Your task to perform on an android device: open app "Reddit" (install if not already installed) and enter user name: "issues@yahoo.com" and password: "belt" Image 0: 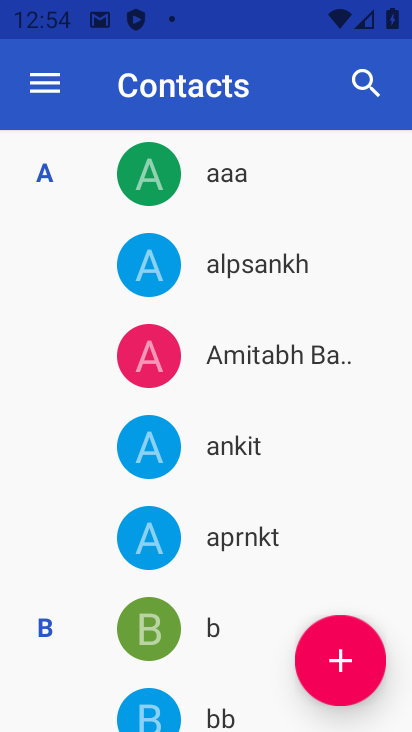
Step 0: press home button
Your task to perform on an android device: open app "Reddit" (install if not already installed) and enter user name: "issues@yahoo.com" and password: "belt" Image 1: 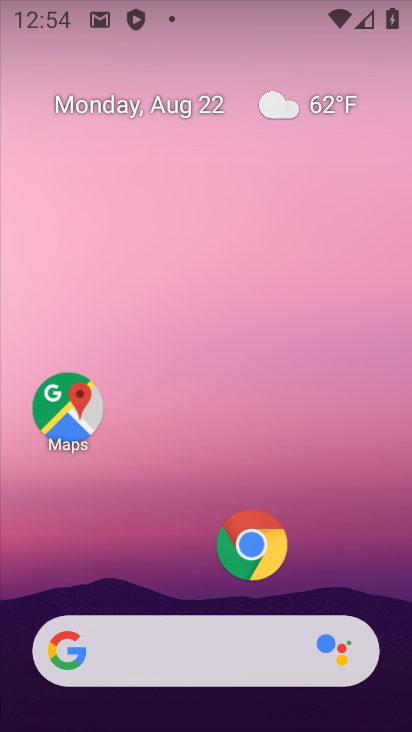
Step 1: drag from (134, 589) to (162, 0)
Your task to perform on an android device: open app "Reddit" (install if not already installed) and enter user name: "issues@yahoo.com" and password: "belt" Image 2: 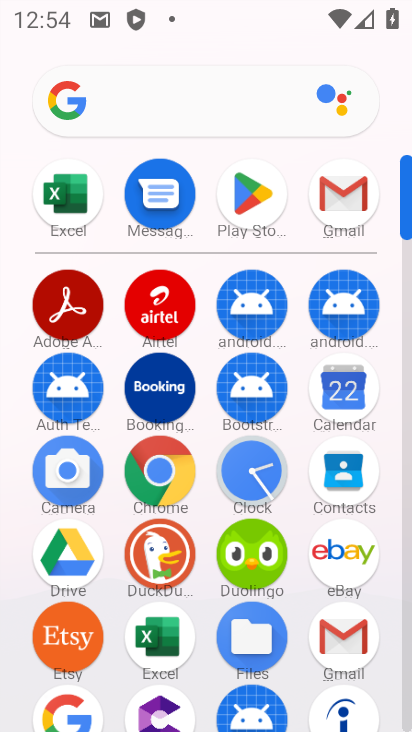
Step 2: click (243, 196)
Your task to perform on an android device: open app "Reddit" (install if not already installed) and enter user name: "issues@yahoo.com" and password: "belt" Image 3: 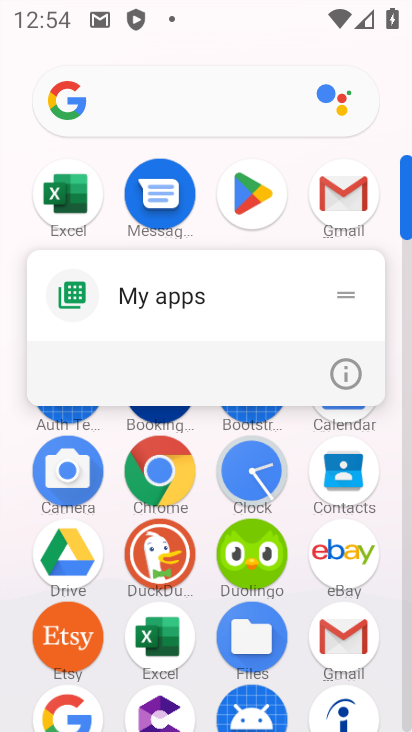
Step 3: click (243, 196)
Your task to perform on an android device: open app "Reddit" (install if not already installed) and enter user name: "issues@yahoo.com" and password: "belt" Image 4: 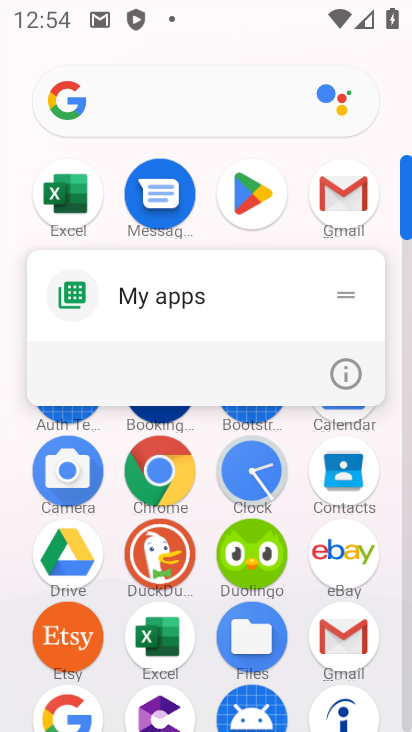
Step 4: click (257, 192)
Your task to perform on an android device: open app "Reddit" (install if not already installed) and enter user name: "issues@yahoo.com" and password: "belt" Image 5: 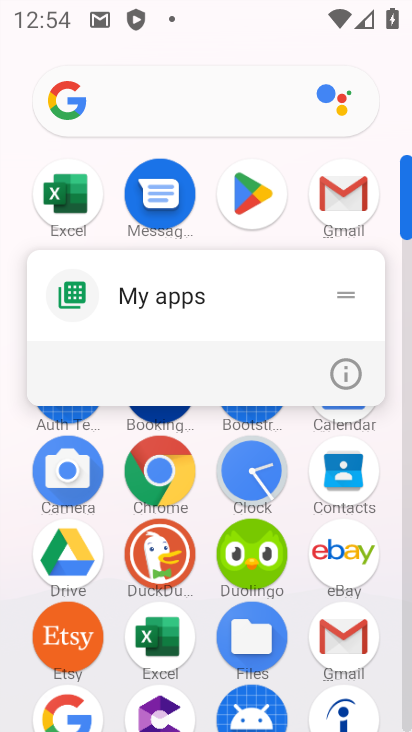
Step 5: click (248, 190)
Your task to perform on an android device: open app "Reddit" (install if not already installed) and enter user name: "issues@yahoo.com" and password: "belt" Image 6: 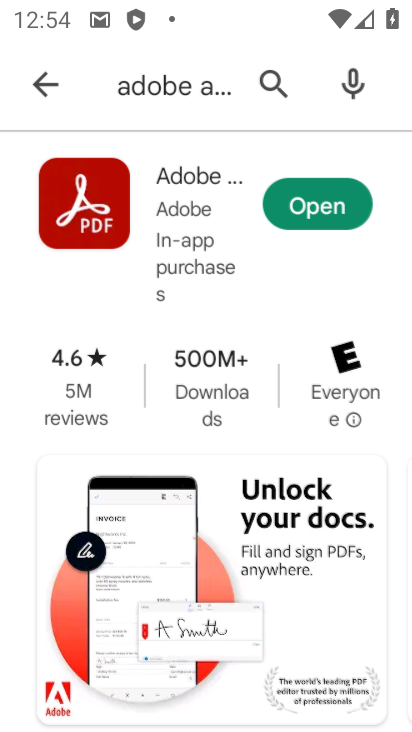
Step 6: click (266, 101)
Your task to perform on an android device: open app "Reddit" (install if not already installed) and enter user name: "issues@yahoo.com" and password: "belt" Image 7: 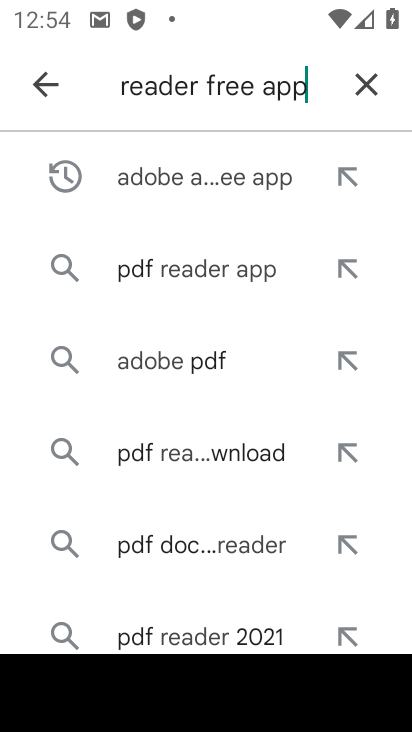
Step 7: click (359, 103)
Your task to perform on an android device: open app "Reddit" (install if not already installed) and enter user name: "issues@yahoo.com" and password: "belt" Image 8: 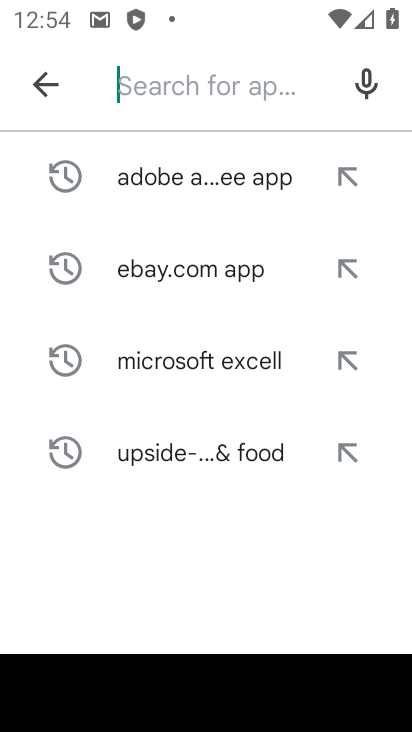
Step 8: click (156, 82)
Your task to perform on an android device: open app "Reddit" (install if not already installed) and enter user name: "issues@yahoo.com" and password: "belt" Image 9: 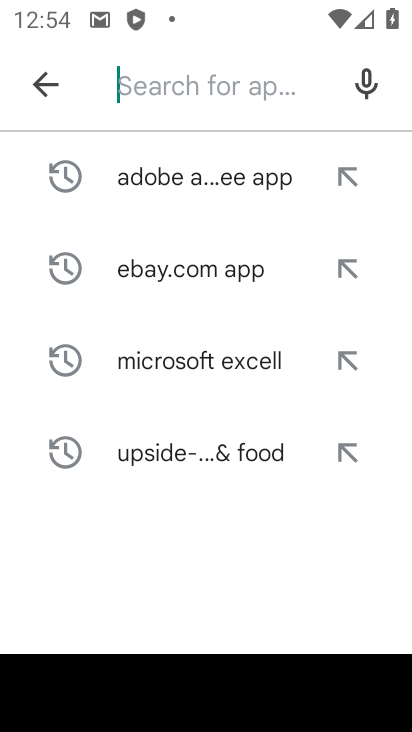
Step 9: type "reddit"
Your task to perform on an android device: open app "Reddit" (install if not already installed) and enter user name: "issues@yahoo.com" and password: "belt" Image 10: 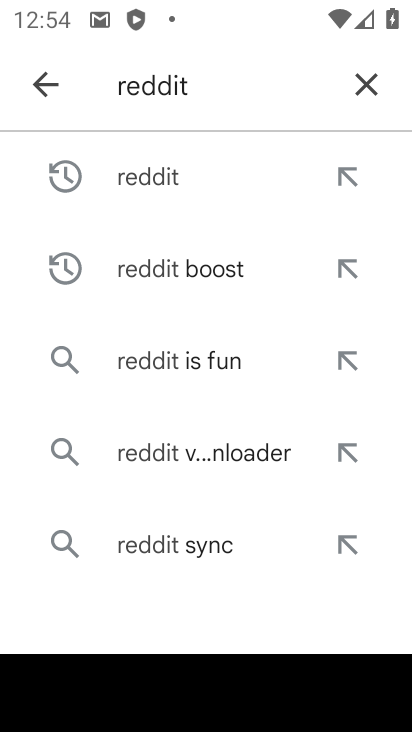
Step 10: click (190, 163)
Your task to perform on an android device: open app "Reddit" (install if not already installed) and enter user name: "issues@yahoo.com" and password: "belt" Image 11: 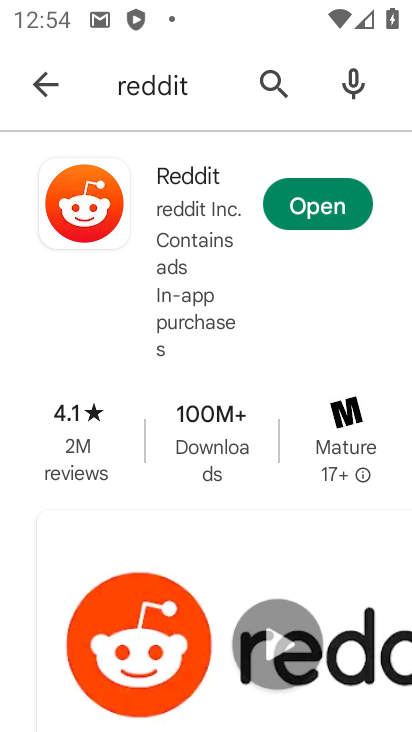
Step 11: click (316, 211)
Your task to perform on an android device: open app "Reddit" (install if not already installed) and enter user name: "issues@yahoo.com" and password: "belt" Image 12: 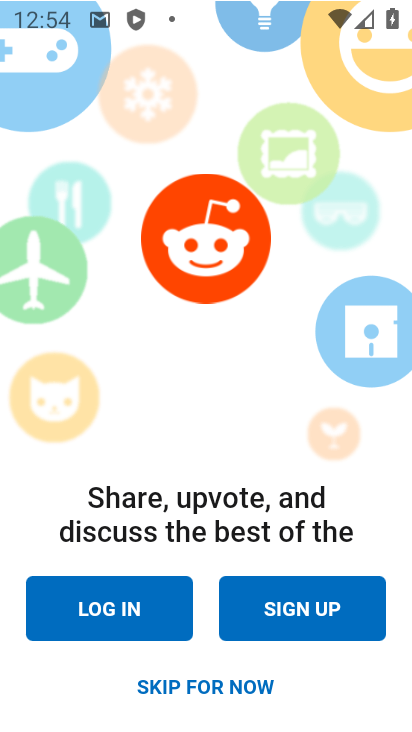
Step 12: click (148, 603)
Your task to perform on an android device: open app "Reddit" (install if not already installed) and enter user name: "issues@yahoo.com" and password: "belt" Image 13: 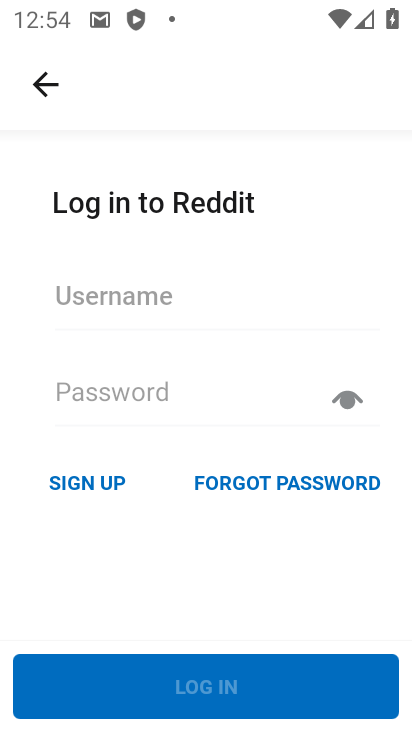
Step 13: click (110, 277)
Your task to perform on an android device: open app "Reddit" (install if not already installed) and enter user name: "issues@yahoo.com" and password: "belt" Image 14: 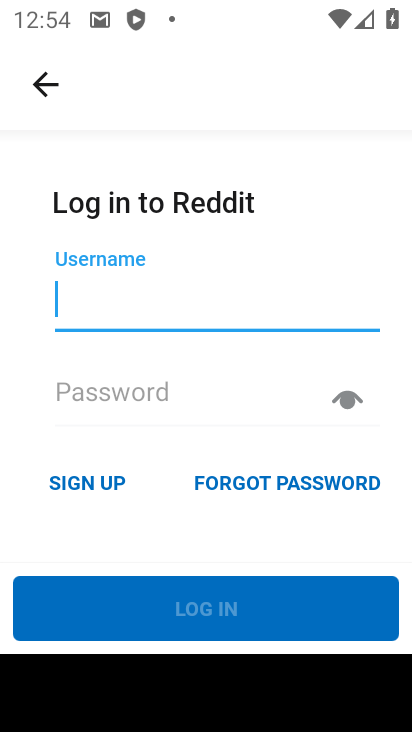
Step 14: type "issues@yahoo.com"
Your task to perform on an android device: open app "Reddit" (install if not already installed) and enter user name: "issues@yahoo.com" and password: "belt" Image 15: 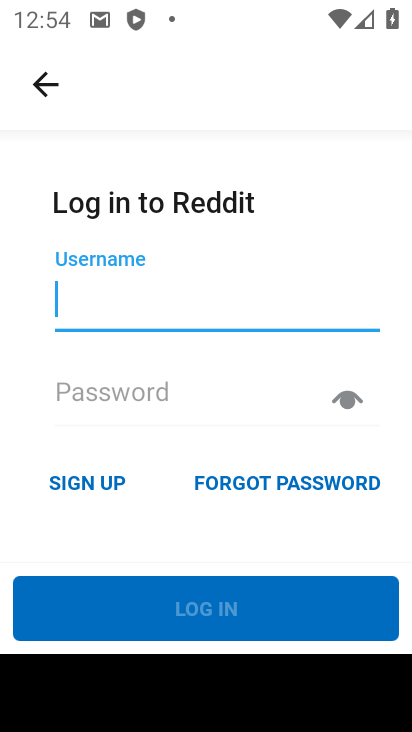
Step 15: click (64, 376)
Your task to perform on an android device: open app "Reddit" (install if not already installed) and enter user name: "issues@yahoo.com" and password: "belt" Image 16: 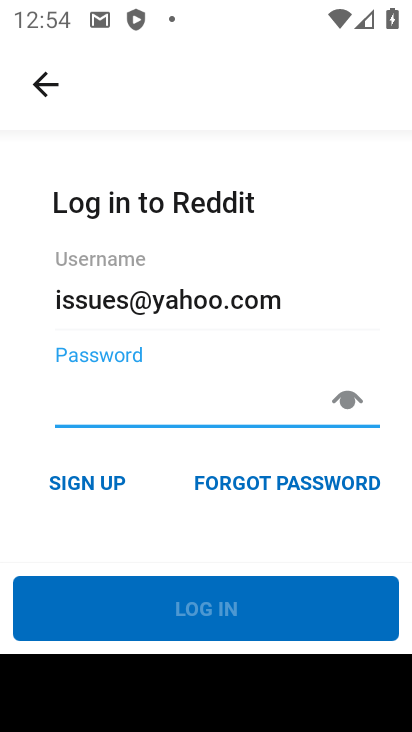
Step 16: click (87, 398)
Your task to perform on an android device: open app "Reddit" (install if not already installed) and enter user name: "issues@yahoo.com" and password: "belt" Image 17: 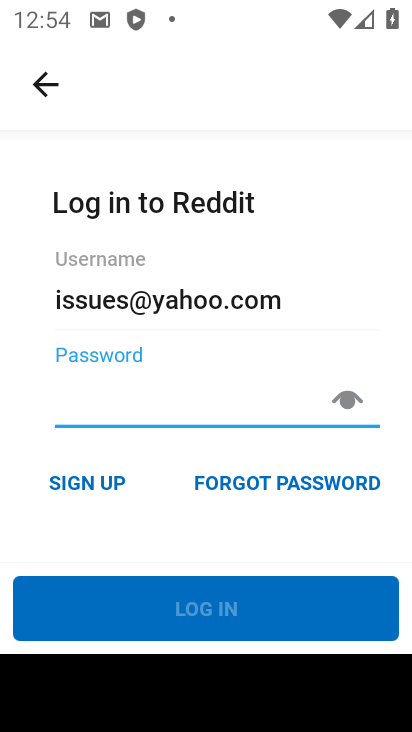
Step 17: type "belt"
Your task to perform on an android device: open app "Reddit" (install if not already installed) and enter user name: "issues@yahoo.com" and password: "belt" Image 18: 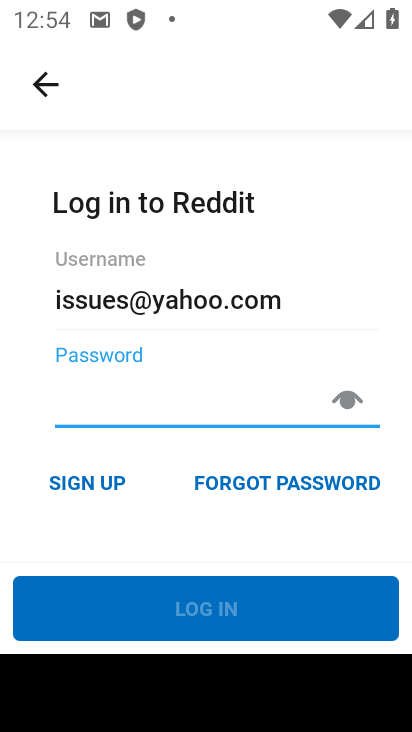
Step 18: click (117, 539)
Your task to perform on an android device: open app "Reddit" (install if not already installed) and enter user name: "issues@yahoo.com" and password: "belt" Image 19: 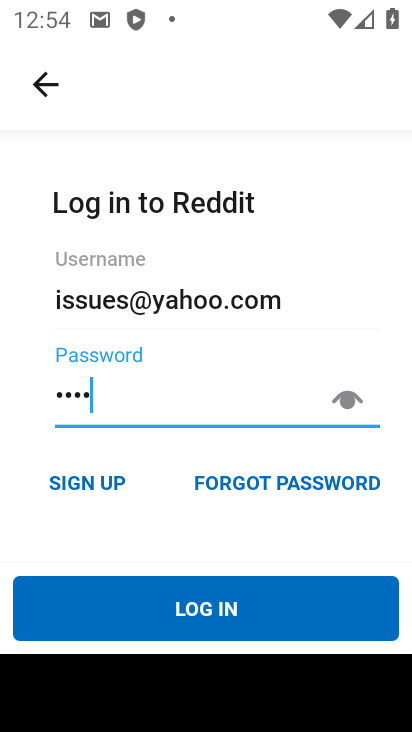
Step 19: task complete